Your task to perform on an android device: Search for pizza restaurants on Maps Image 0: 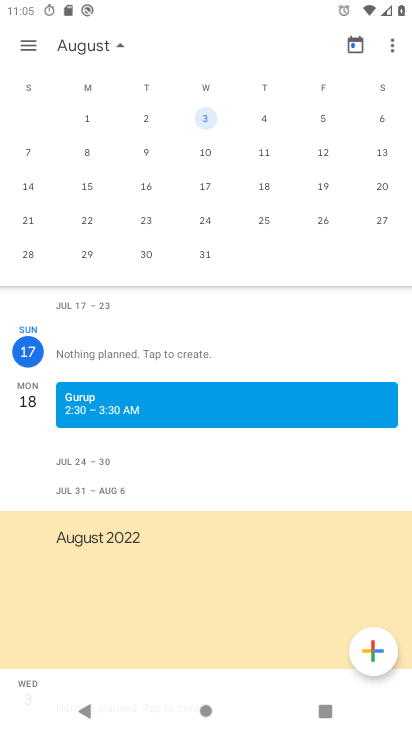
Step 0: press back button
Your task to perform on an android device: Search for pizza restaurants on Maps Image 1: 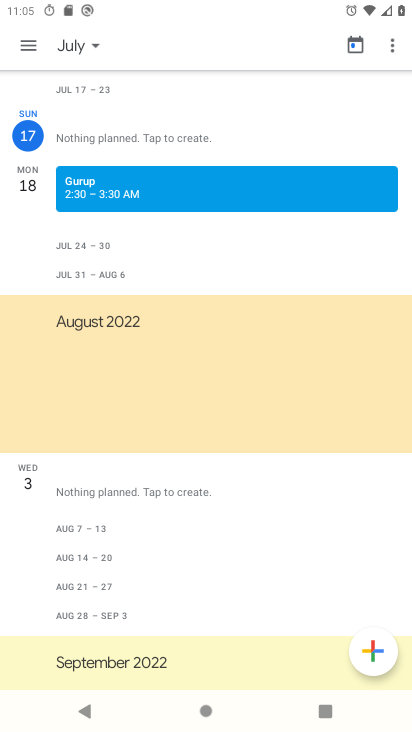
Step 1: press home button
Your task to perform on an android device: Search for pizza restaurants on Maps Image 2: 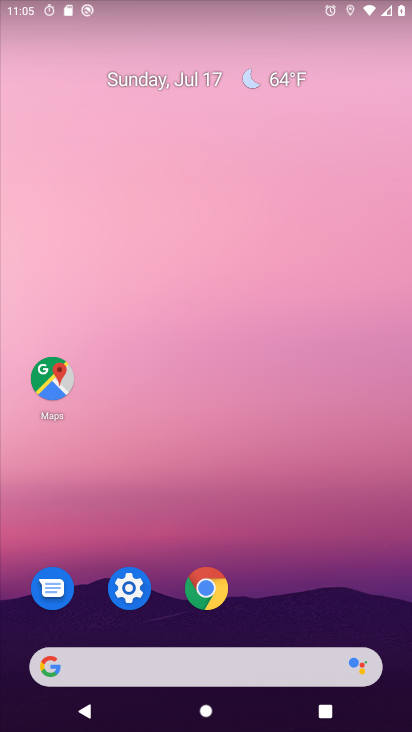
Step 2: drag from (320, 311) to (320, 166)
Your task to perform on an android device: Search for pizza restaurants on Maps Image 3: 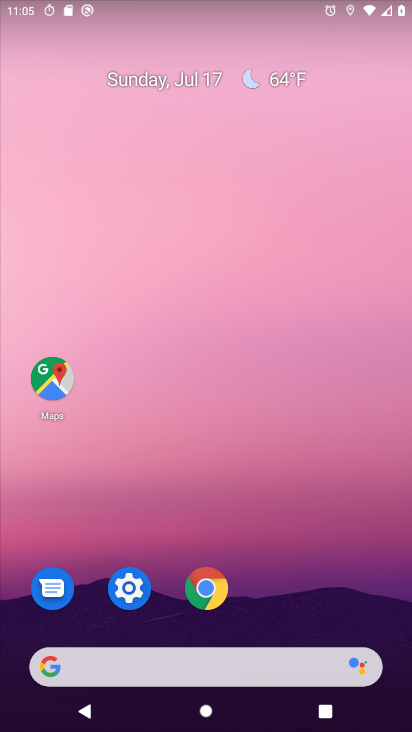
Step 3: drag from (279, 654) to (201, 236)
Your task to perform on an android device: Search for pizza restaurants on Maps Image 4: 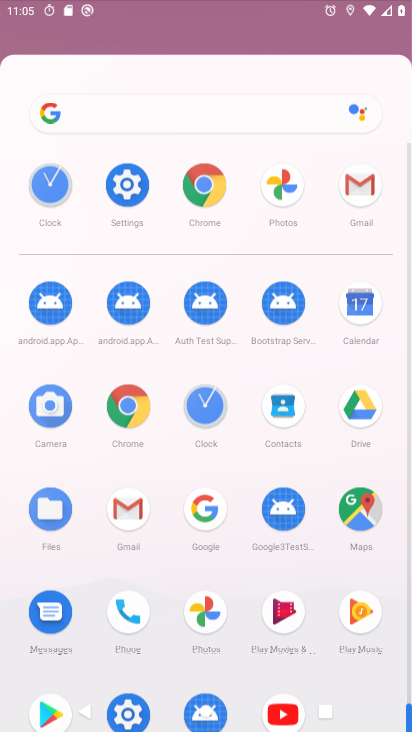
Step 4: drag from (280, 585) to (267, 178)
Your task to perform on an android device: Search for pizza restaurants on Maps Image 5: 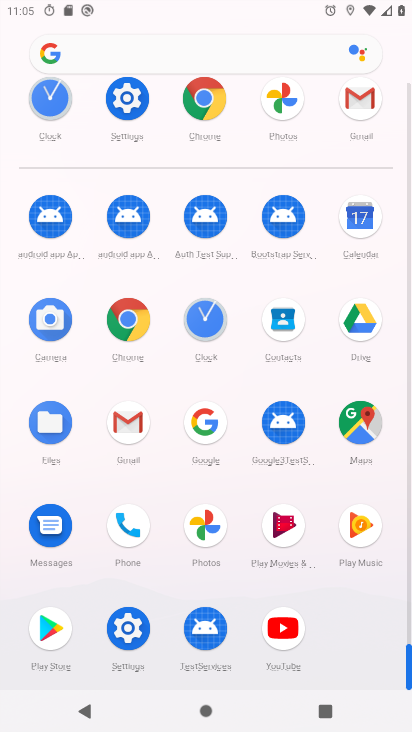
Step 5: click (360, 437)
Your task to perform on an android device: Search for pizza restaurants on Maps Image 6: 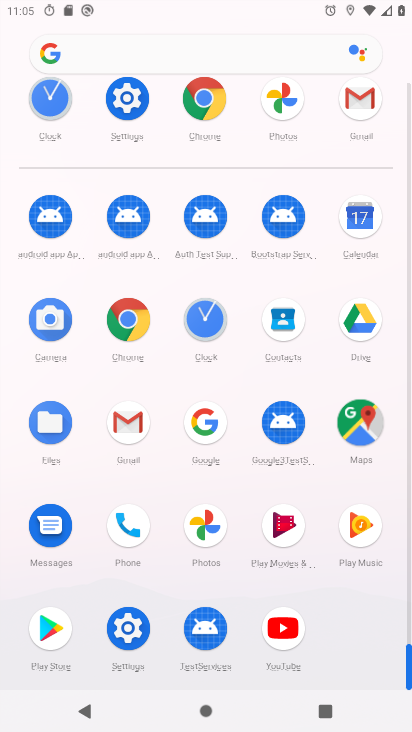
Step 6: click (361, 436)
Your task to perform on an android device: Search for pizza restaurants on Maps Image 7: 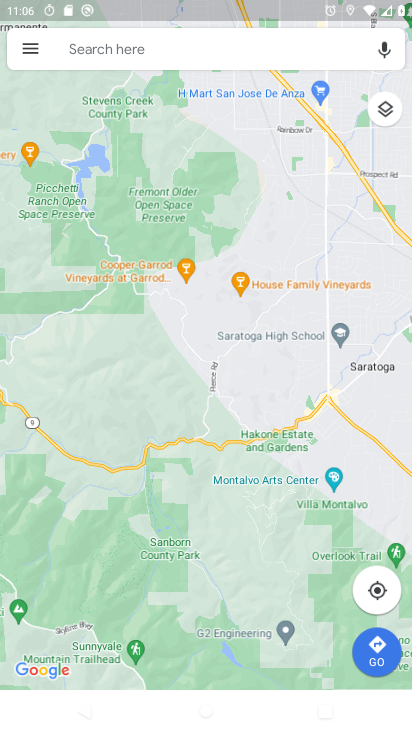
Step 7: click (82, 49)
Your task to perform on an android device: Search for pizza restaurants on Maps Image 8: 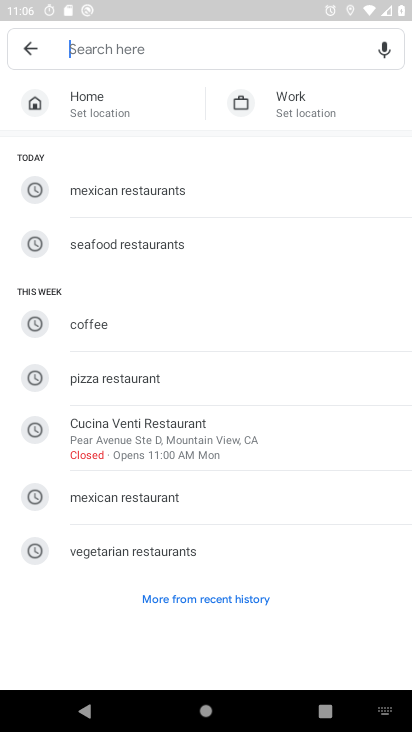
Step 8: click (126, 385)
Your task to perform on an android device: Search for pizza restaurants on Maps Image 9: 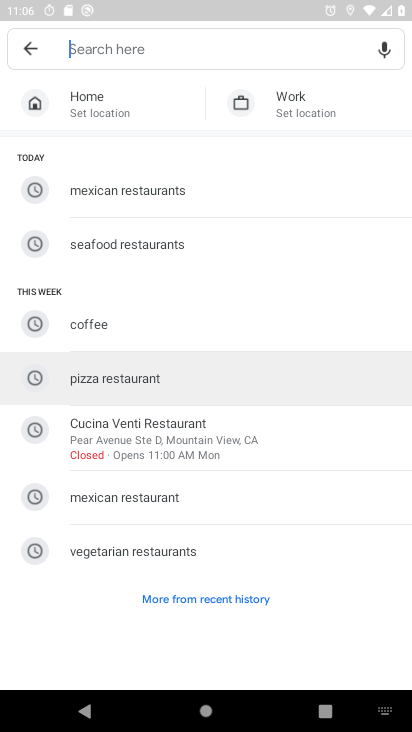
Step 9: click (126, 385)
Your task to perform on an android device: Search for pizza restaurants on Maps Image 10: 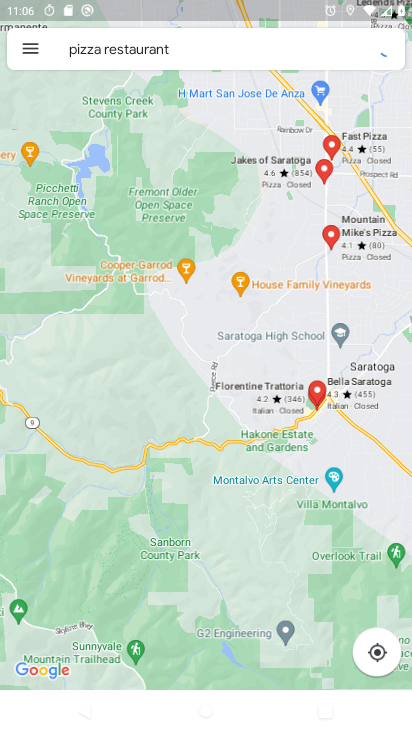
Step 10: task complete